Your task to perform on an android device: toggle show notifications on the lock screen Image 0: 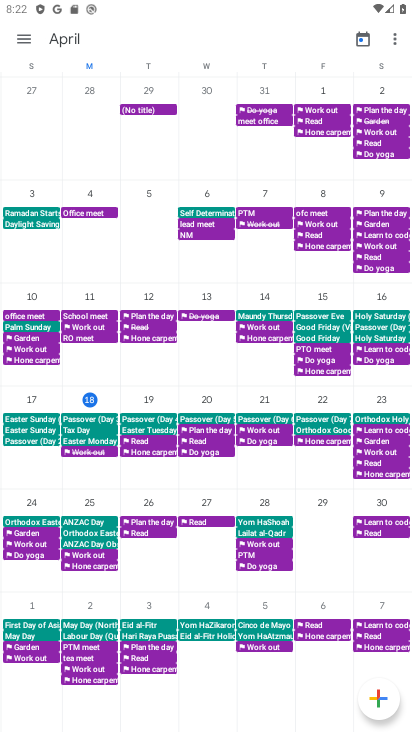
Step 0: press home button
Your task to perform on an android device: toggle show notifications on the lock screen Image 1: 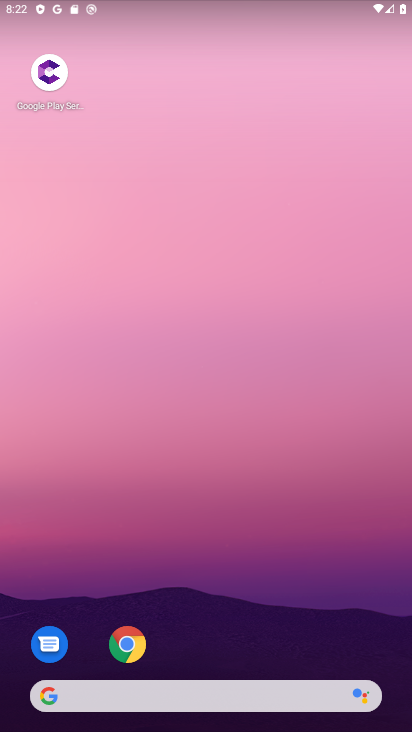
Step 1: drag from (131, 690) to (61, 166)
Your task to perform on an android device: toggle show notifications on the lock screen Image 2: 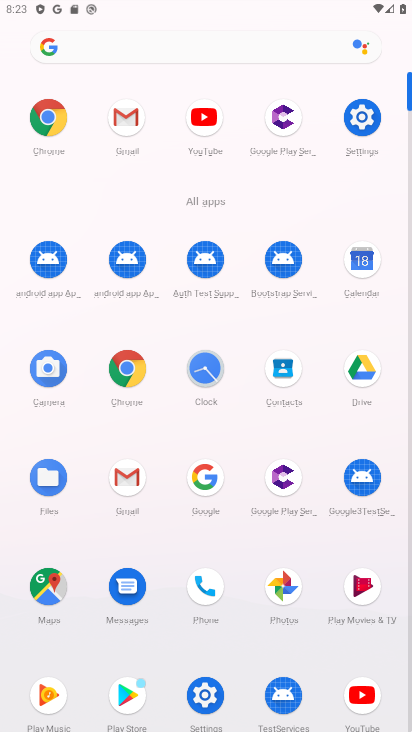
Step 2: click (372, 122)
Your task to perform on an android device: toggle show notifications on the lock screen Image 3: 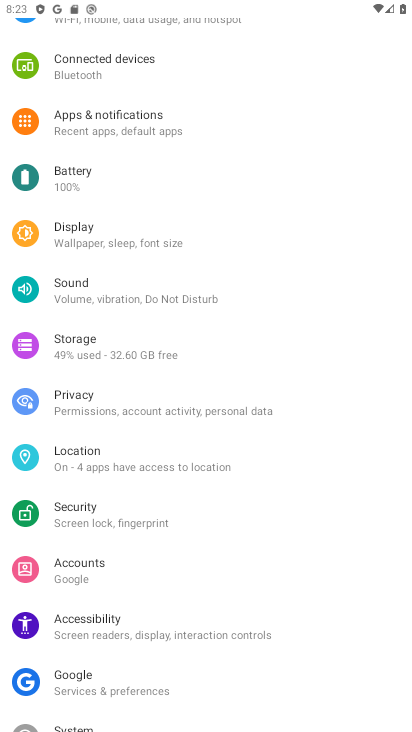
Step 3: click (128, 130)
Your task to perform on an android device: toggle show notifications on the lock screen Image 4: 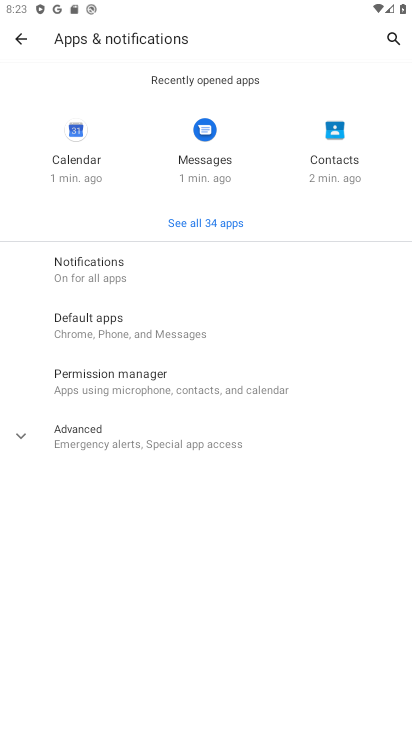
Step 4: click (124, 267)
Your task to perform on an android device: toggle show notifications on the lock screen Image 5: 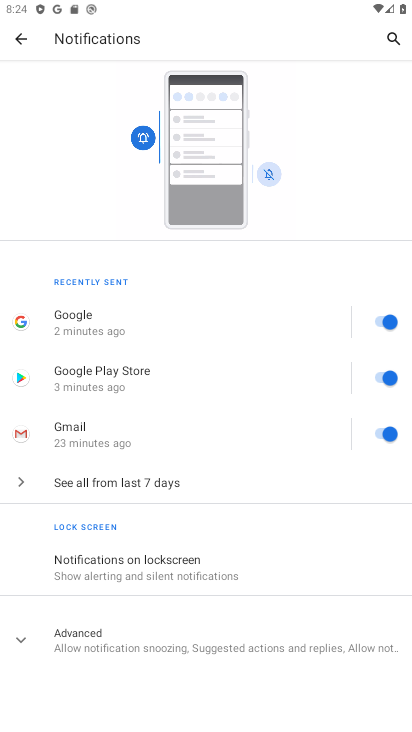
Step 5: click (133, 575)
Your task to perform on an android device: toggle show notifications on the lock screen Image 6: 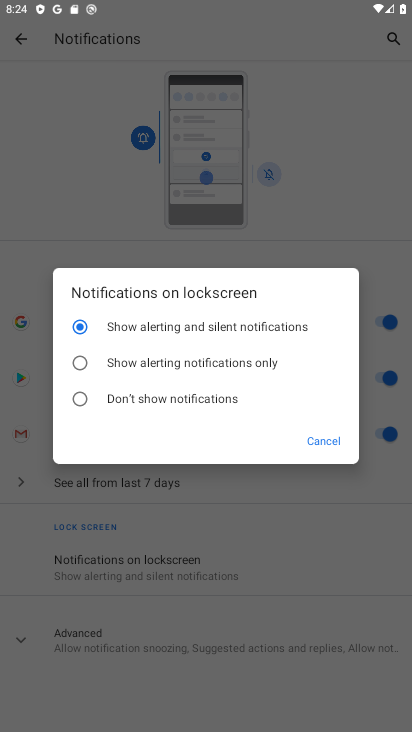
Step 6: click (210, 374)
Your task to perform on an android device: toggle show notifications on the lock screen Image 7: 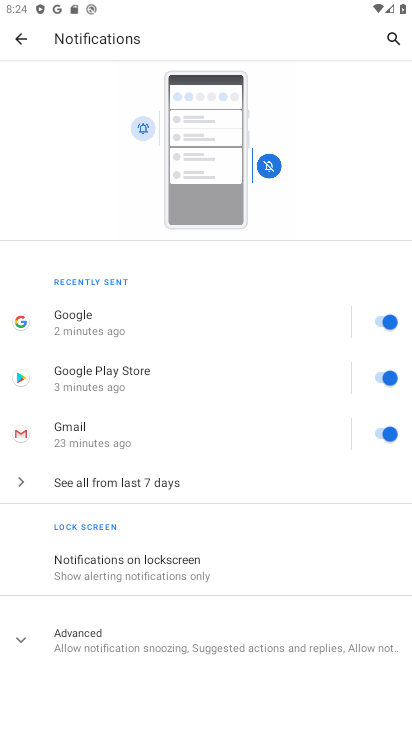
Step 7: task complete